Your task to perform on an android device: delete browsing data in the chrome app Image 0: 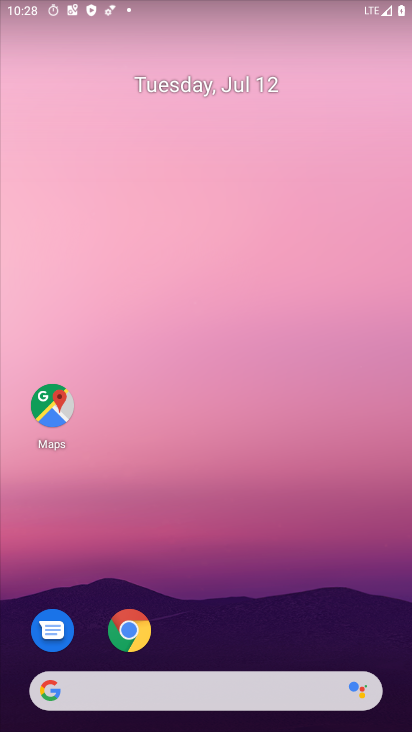
Step 0: click (132, 631)
Your task to perform on an android device: delete browsing data in the chrome app Image 1: 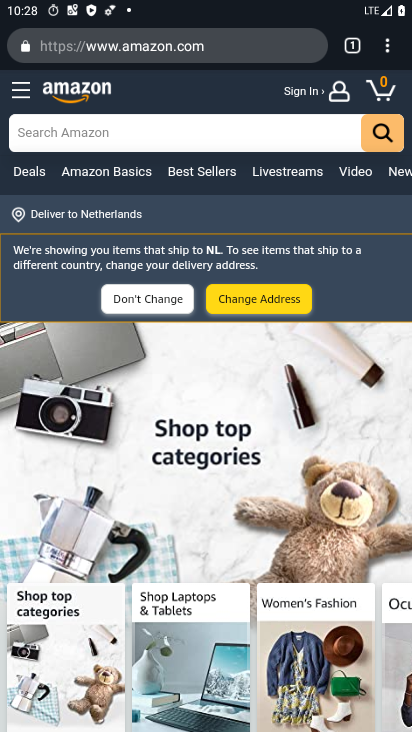
Step 1: click (383, 50)
Your task to perform on an android device: delete browsing data in the chrome app Image 2: 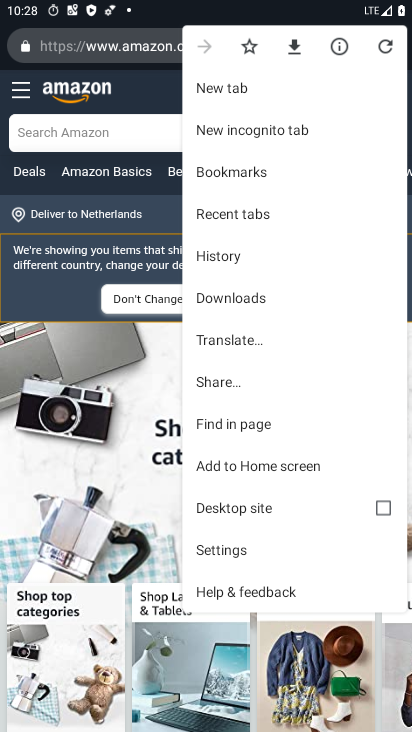
Step 2: click (246, 548)
Your task to perform on an android device: delete browsing data in the chrome app Image 3: 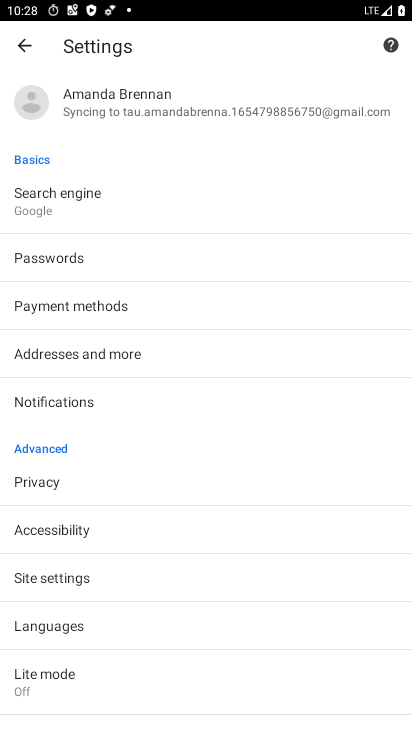
Step 3: click (35, 471)
Your task to perform on an android device: delete browsing data in the chrome app Image 4: 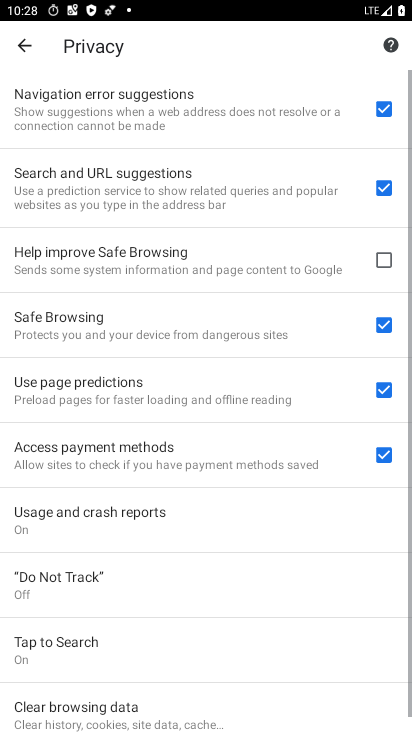
Step 4: drag from (206, 598) to (237, 52)
Your task to perform on an android device: delete browsing data in the chrome app Image 5: 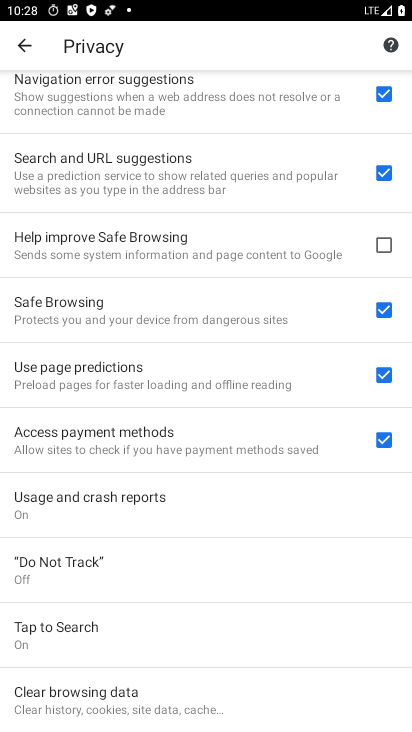
Step 5: click (95, 697)
Your task to perform on an android device: delete browsing data in the chrome app Image 6: 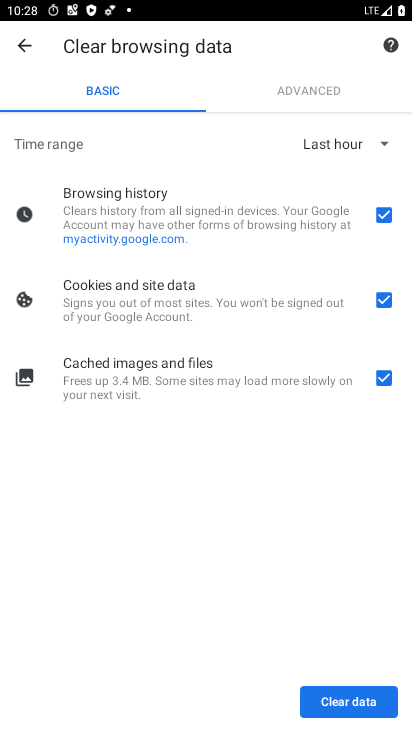
Step 6: click (340, 706)
Your task to perform on an android device: delete browsing data in the chrome app Image 7: 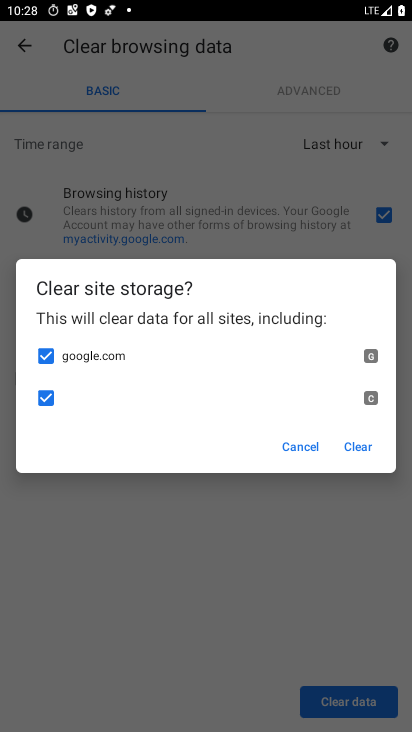
Step 7: click (359, 445)
Your task to perform on an android device: delete browsing data in the chrome app Image 8: 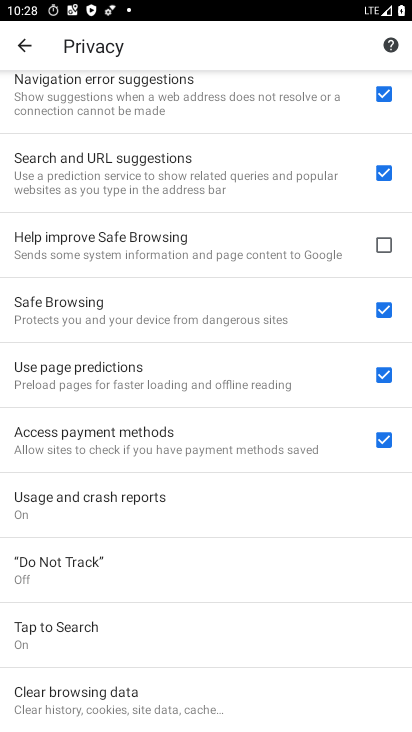
Step 8: task complete